Your task to perform on an android device: Turn on the flashlight Image 0: 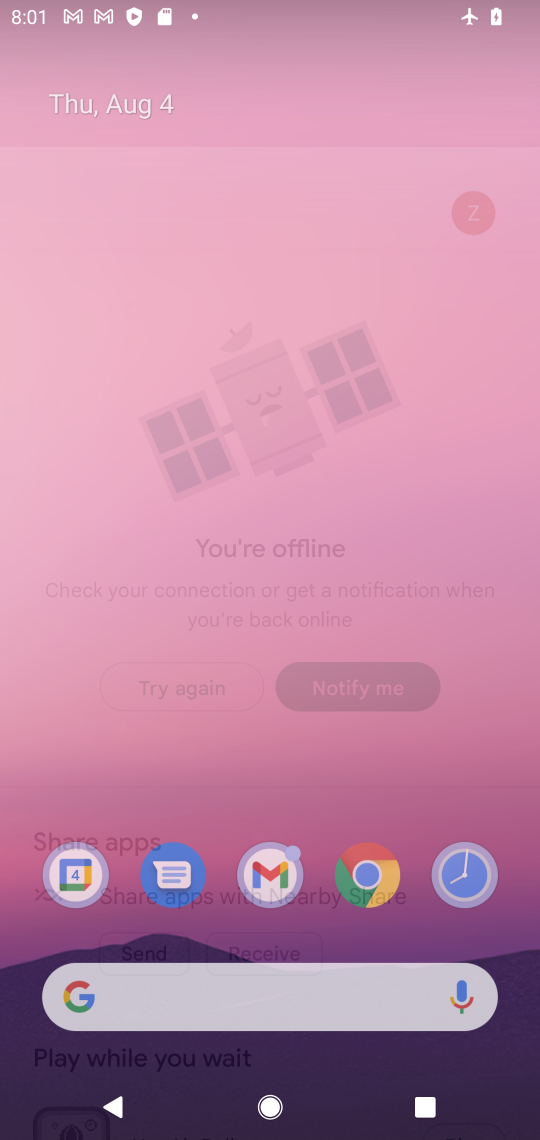
Step 0: press home button
Your task to perform on an android device: Turn on the flashlight Image 1: 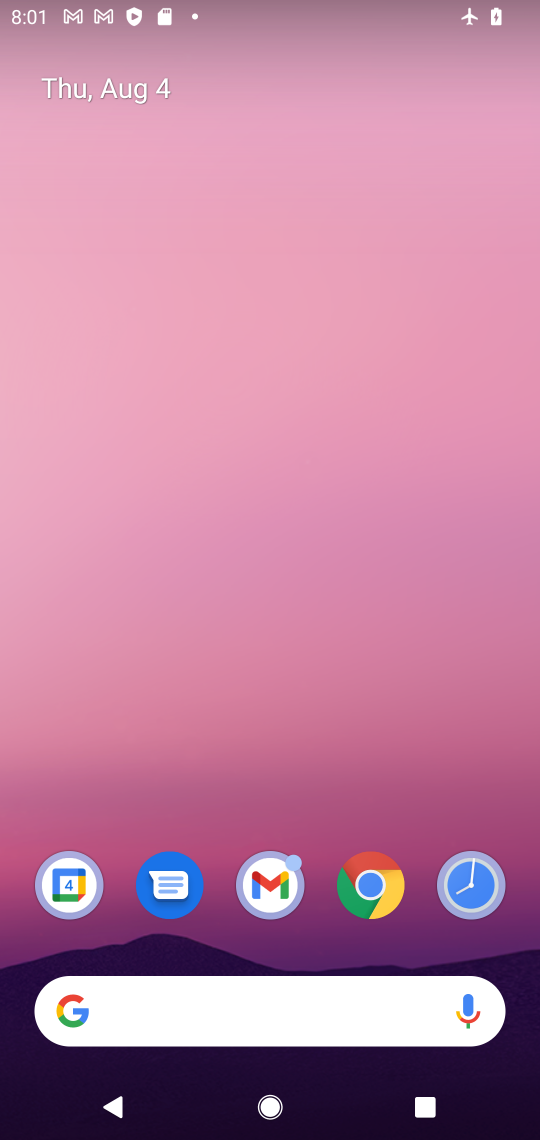
Step 1: drag from (487, 50) to (429, 787)
Your task to perform on an android device: Turn on the flashlight Image 2: 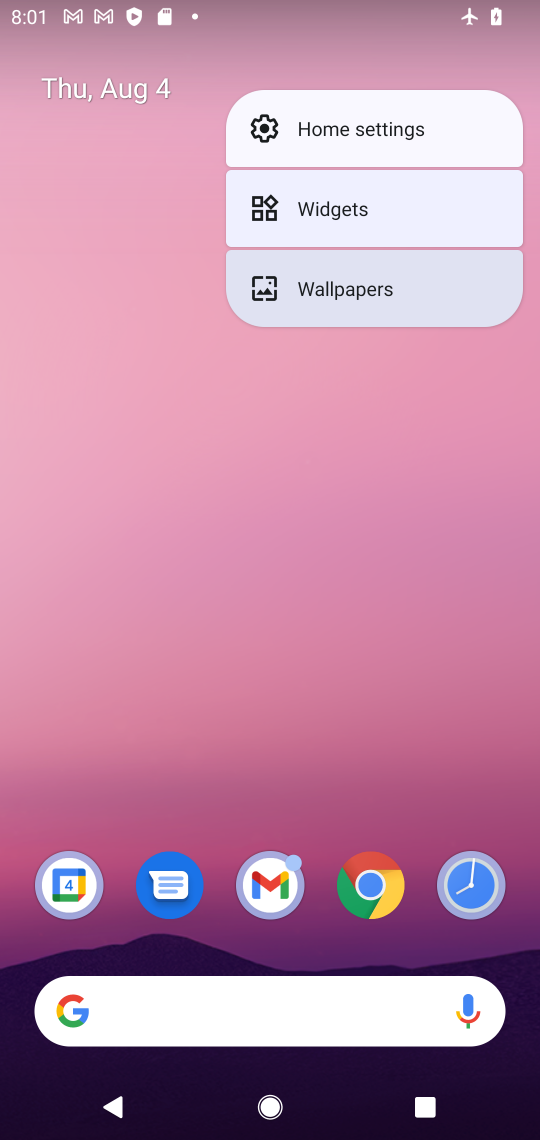
Step 2: click (188, 364)
Your task to perform on an android device: Turn on the flashlight Image 3: 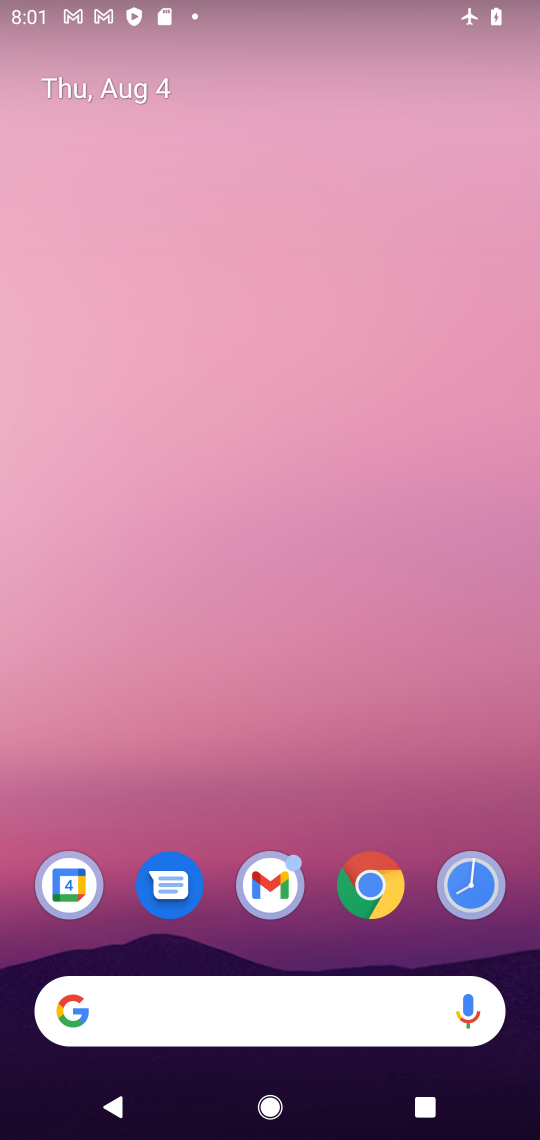
Step 3: task complete